Your task to perform on an android device: open the mobile data screen to see how much data has been used Image 0: 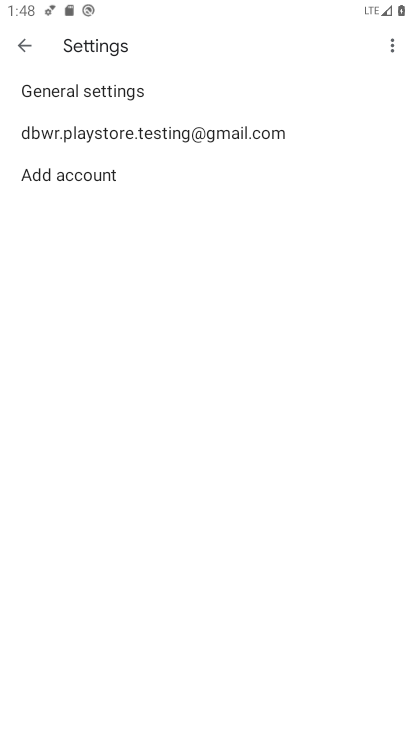
Step 0: press home button
Your task to perform on an android device: open the mobile data screen to see how much data has been used Image 1: 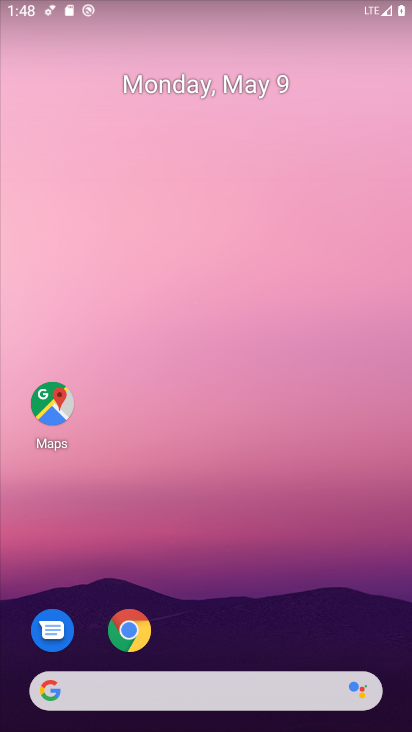
Step 1: drag from (243, 627) to (322, 45)
Your task to perform on an android device: open the mobile data screen to see how much data has been used Image 2: 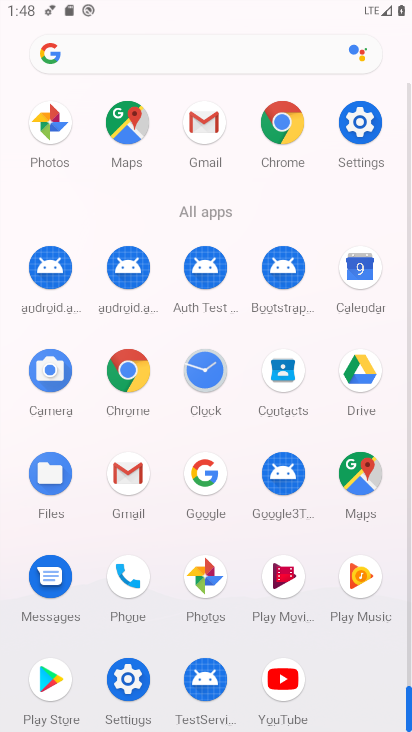
Step 2: click (361, 116)
Your task to perform on an android device: open the mobile data screen to see how much data has been used Image 3: 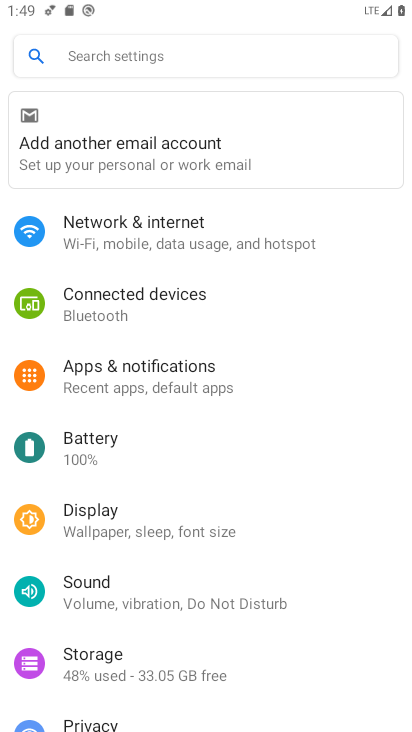
Step 3: click (181, 244)
Your task to perform on an android device: open the mobile data screen to see how much data has been used Image 4: 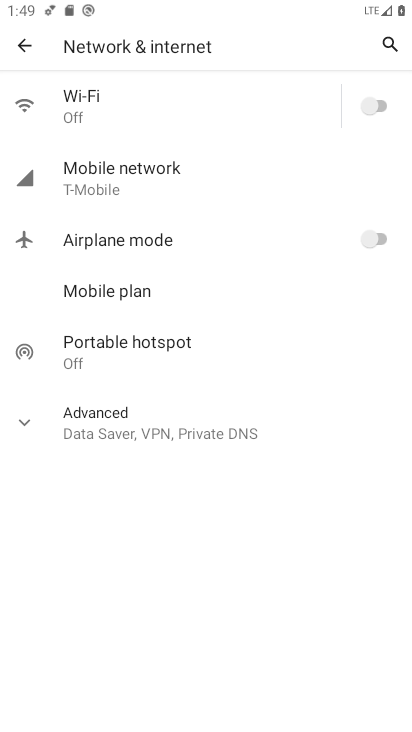
Step 4: click (173, 187)
Your task to perform on an android device: open the mobile data screen to see how much data has been used Image 5: 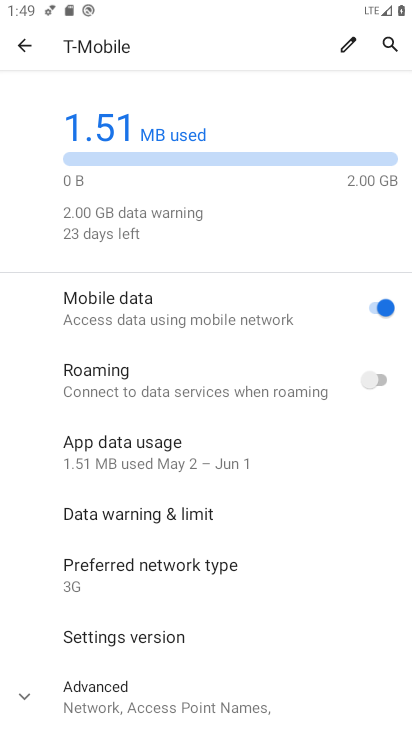
Step 5: click (199, 452)
Your task to perform on an android device: open the mobile data screen to see how much data has been used Image 6: 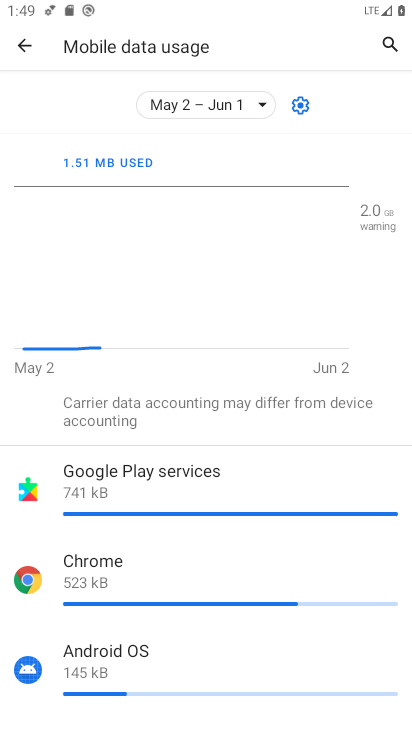
Step 6: task complete